Your task to perform on an android device: change the upload size in google photos Image 0: 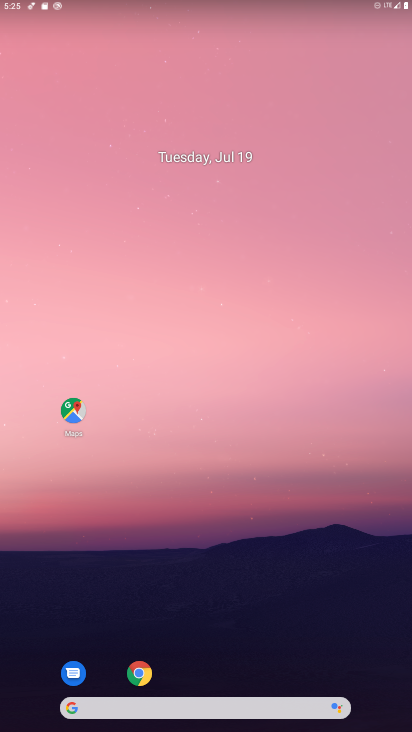
Step 0: press home button
Your task to perform on an android device: change the upload size in google photos Image 1: 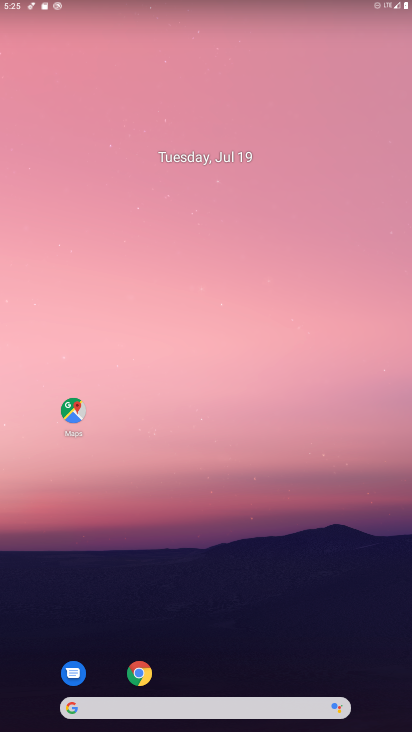
Step 1: drag from (218, 675) to (220, 24)
Your task to perform on an android device: change the upload size in google photos Image 2: 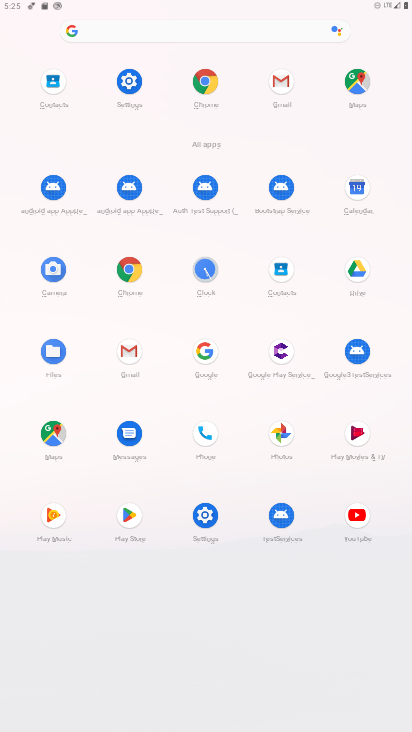
Step 2: click (279, 426)
Your task to perform on an android device: change the upload size in google photos Image 3: 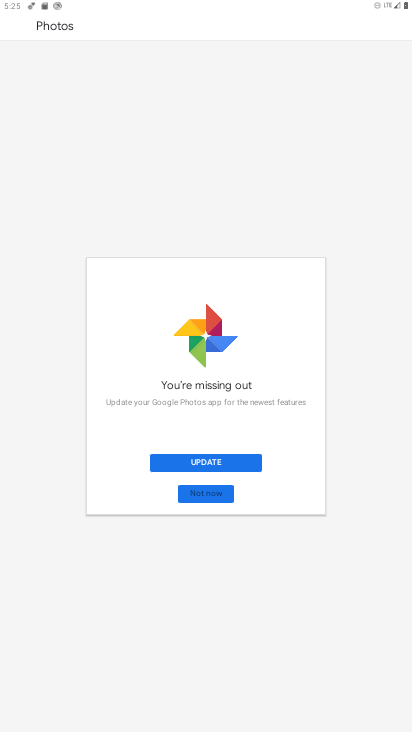
Step 3: click (206, 457)
Your task to perform on an android device: change the upload size in google photos Image 4: 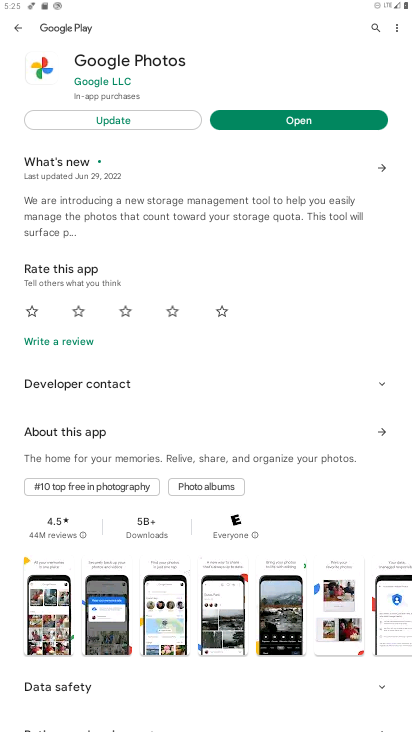
Step 4: click (114, 121)
Your task to perform on an android device: change the upload size in google photos Image 5: 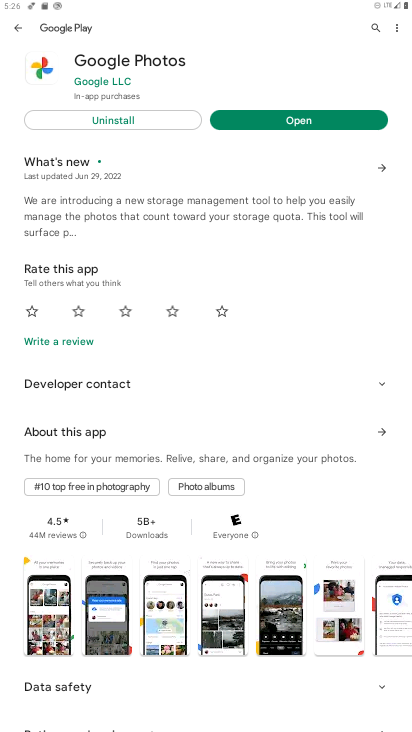
Step 5: click (300, 114)
Your task to perform on an android device: change the upload size in google photos Image 6: 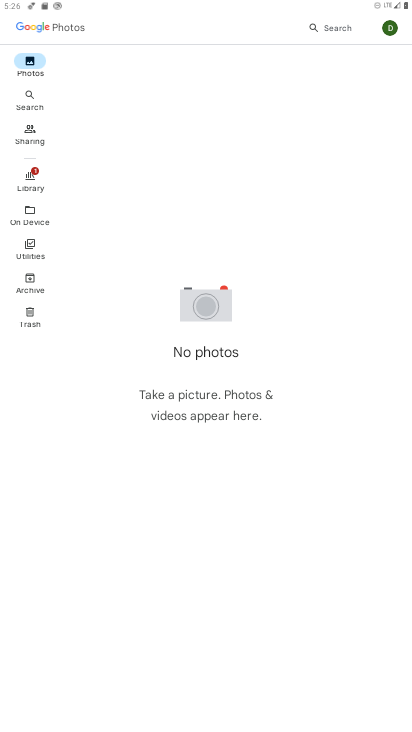
Step 6: click (392, 21)
Your task to perform on an android device: change the upload size in google photos Image 7: 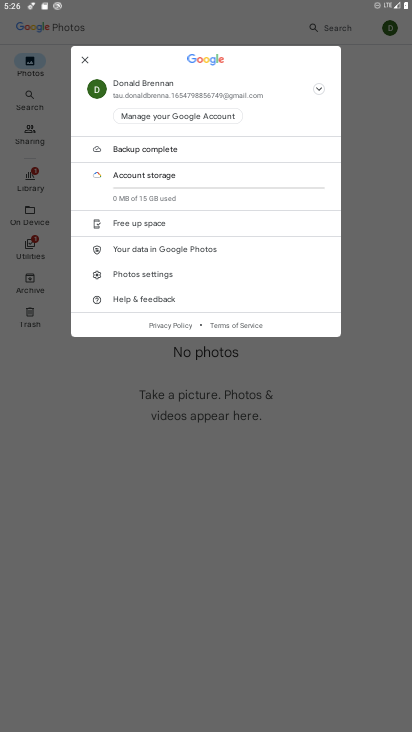
Step 7: click (164, 145)
Your task to perform on an android device: change the upload size in google photos Image 8: 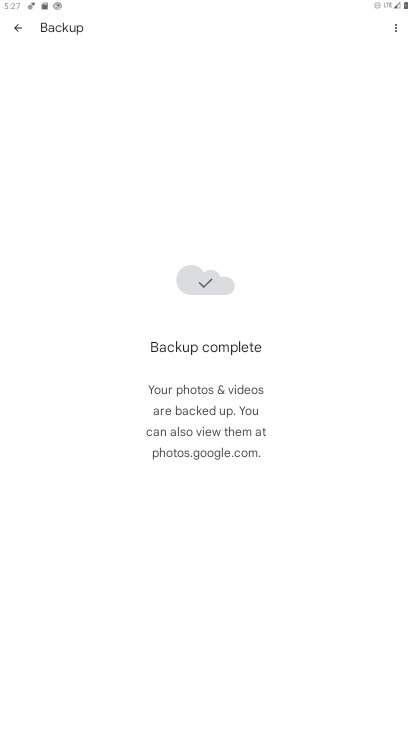
Step 8: click (206, 283)
Your task to perform on an android device: change the upload size in google photos Image 9: 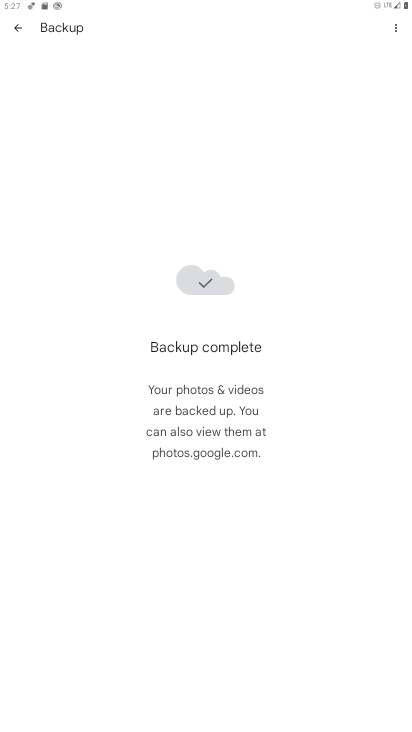
Step 9: click (397, 25)
Your task to perform on an android device: change the upload size in google photos Image 10: 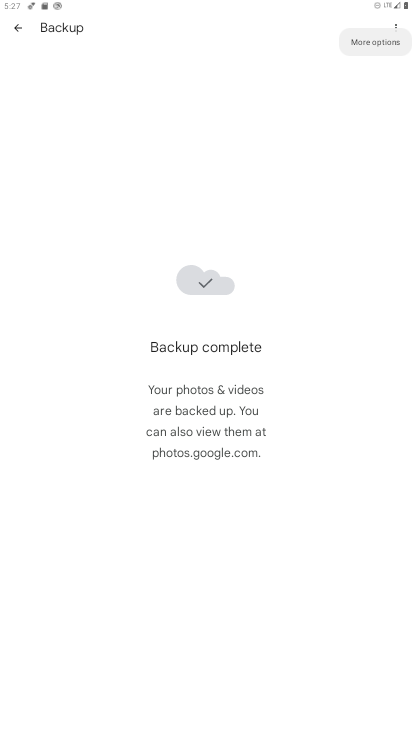
Step 10: click (394, 26)
Your task to perform on an android device: change the upload size in google photos Image 11: 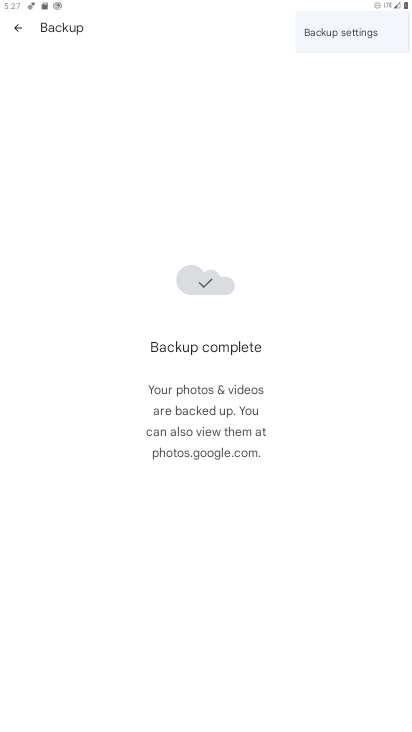
Step 11: click (332, 33)
Your task to perform on an android device: change the upload size in google photos Image 12: 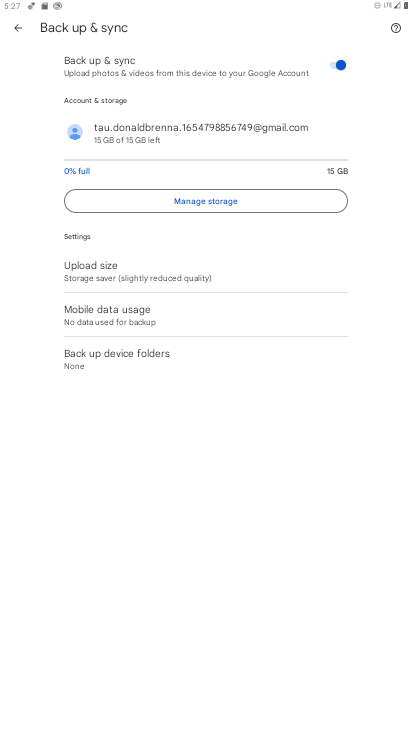
Step 12: click (117, 267)
Your task to perform on an android device: change the upload size in google photos Image 13: 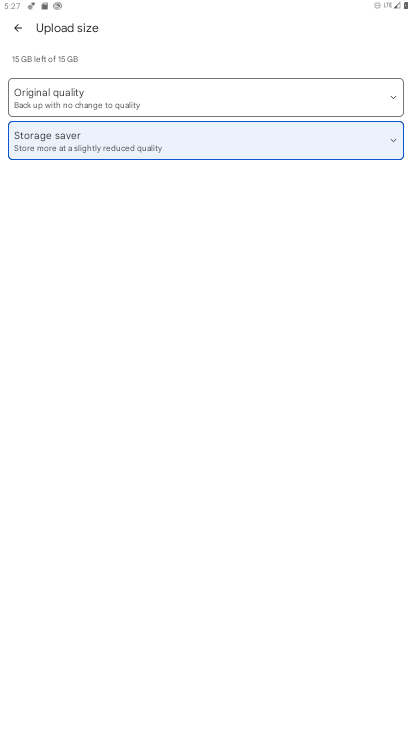
Step 13: click (79, 99)
Your task to perform on an android device: change the upload size in google photos Image 14: 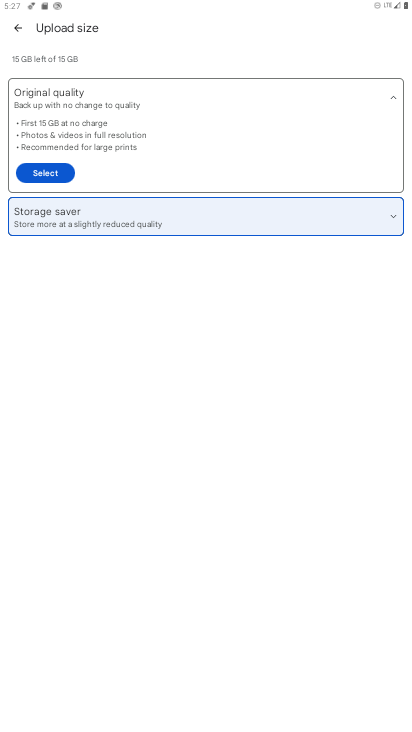
Step 14: task complete